Your task to perform on an android device: manage bookmarks in the chrome app Image 0: 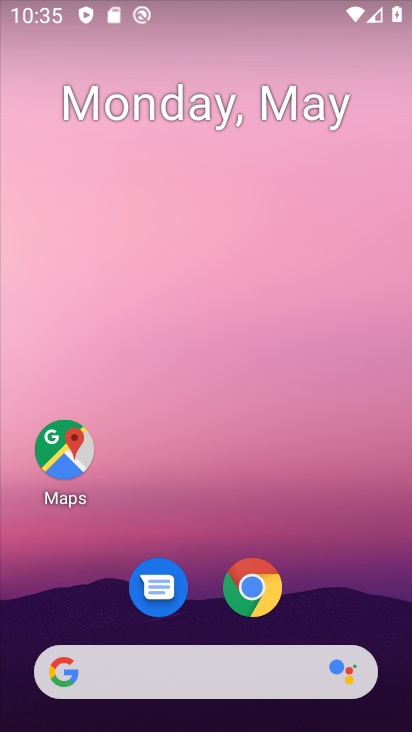
Step 0: click (249, 583)
Your task to perform on an android device: manage bookmarks in the chrome app Image 1: 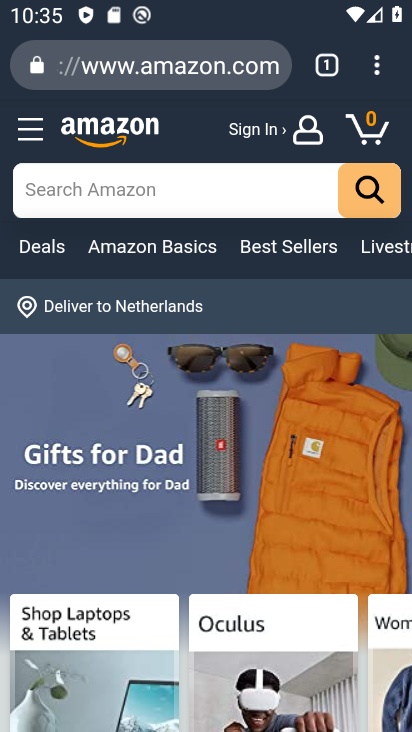
Step 1: click (376, 74)
Your task to perform on an android device: manage bookmarks in the chrome app Image 2: 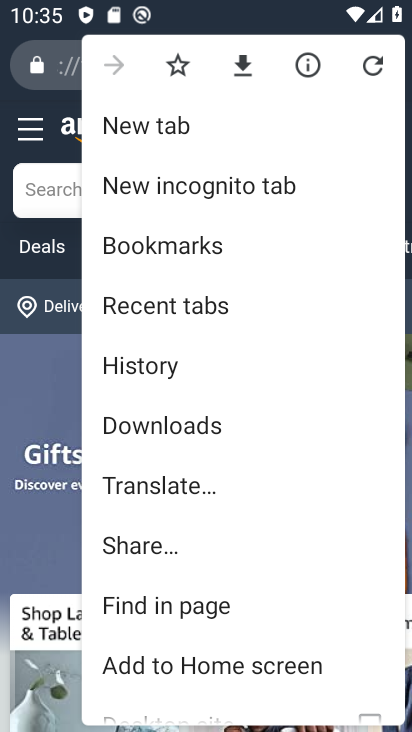
Step 2: drag from (183, 598) to (175, 442)
Your task to perform on an android device: manage bookmarks in the chrome app Image 3: 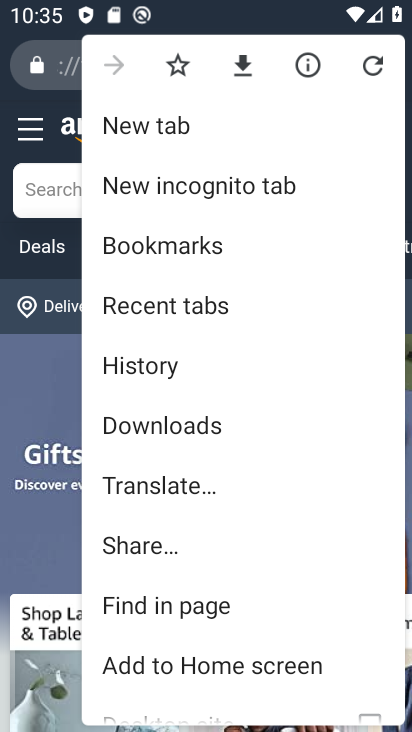
Step 3: click (161, 245)
Your task to perform on an android device: manage bookmarks in the chrome app Image 4: 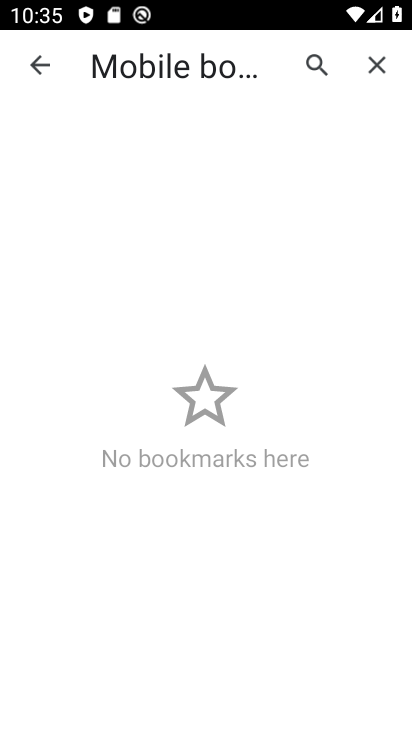
Step 4: task complete